Your task to perform on an android device: toggle notification dots Image 0: 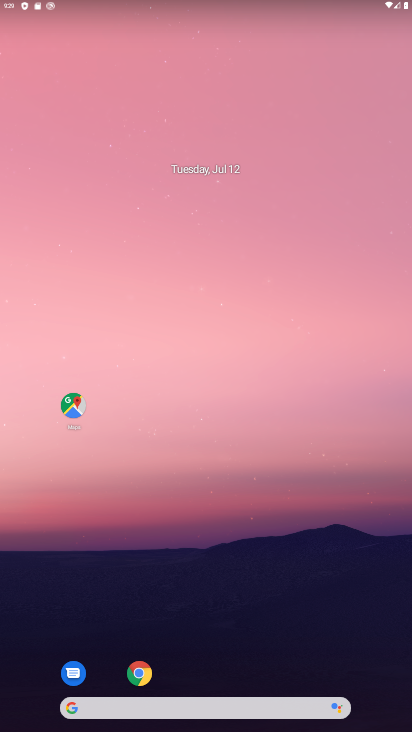
Step 0: drag from (391, 673) to (326, 211)
Your task to perform on an android device: toggle notification dots Image 1: 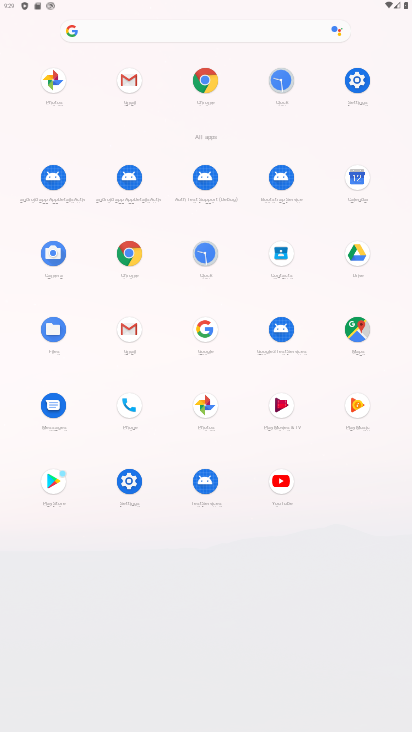
Step 1: click (345, 81)
Your task to perform on an android device: toggle notification dots Image 2: 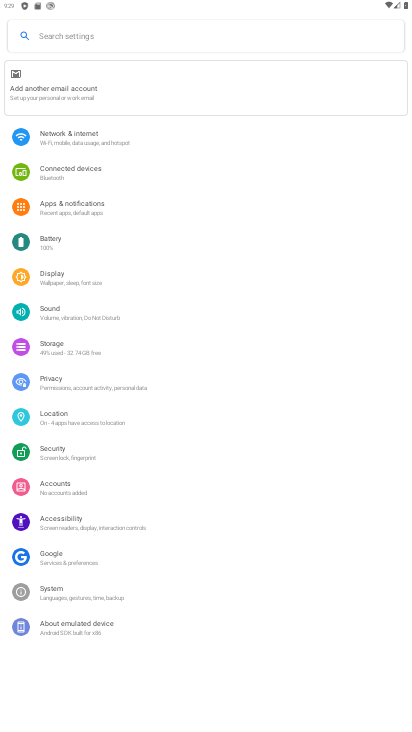
Step 2: click (73, 202)
Your task to perform on an android device: toggle notification dots Image 3: 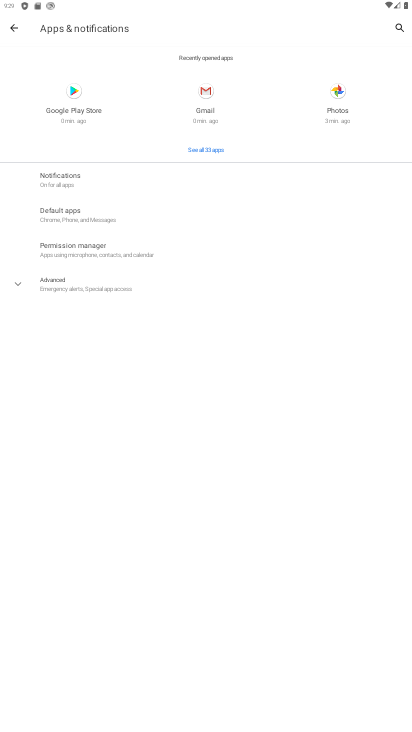
Step 3: click (61, 172)
Your task to perform on an android device: toggle notification dots Image 4: 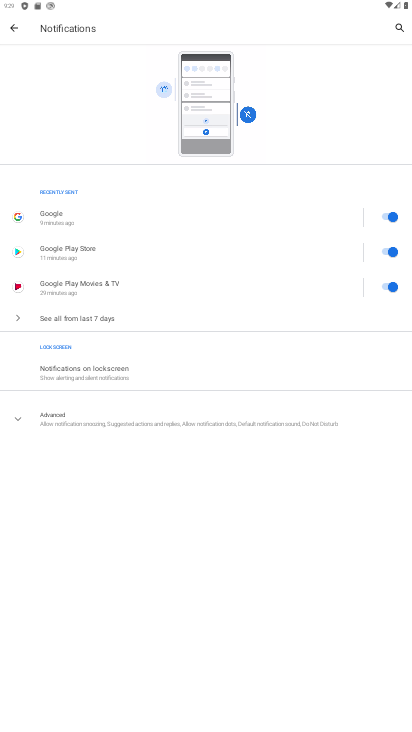
Step 4: click (22, 419)
Your task to perform on an android device: toggle notification dots Image 5: 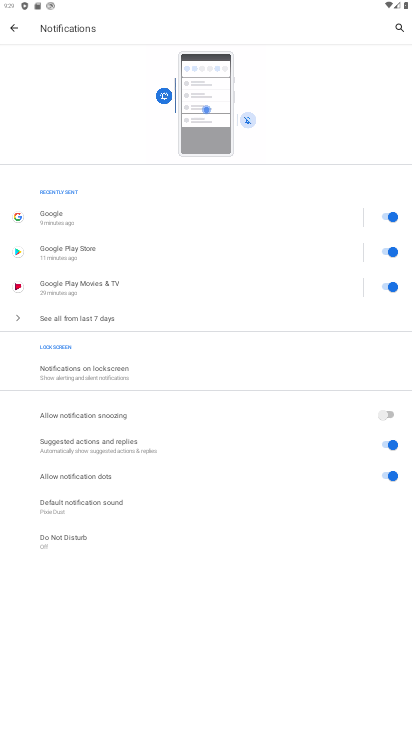
Step 5: click (386, 475)
Your task to perform on an android device: toggle notification dots Image 6: 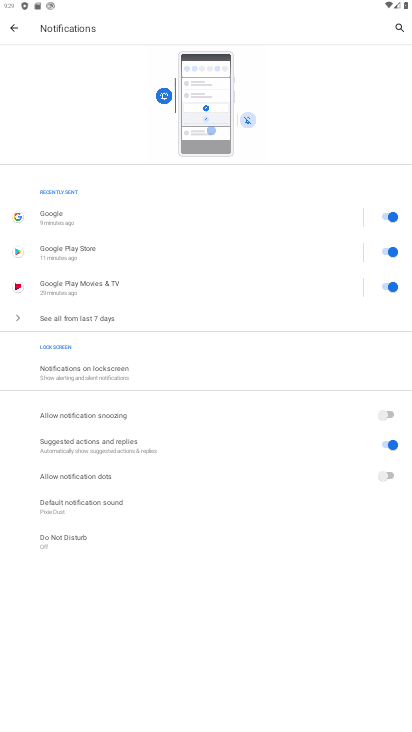
Step 6: task complete